Your task to perform on an android device: uninstall "Google Chrome" Image 0: 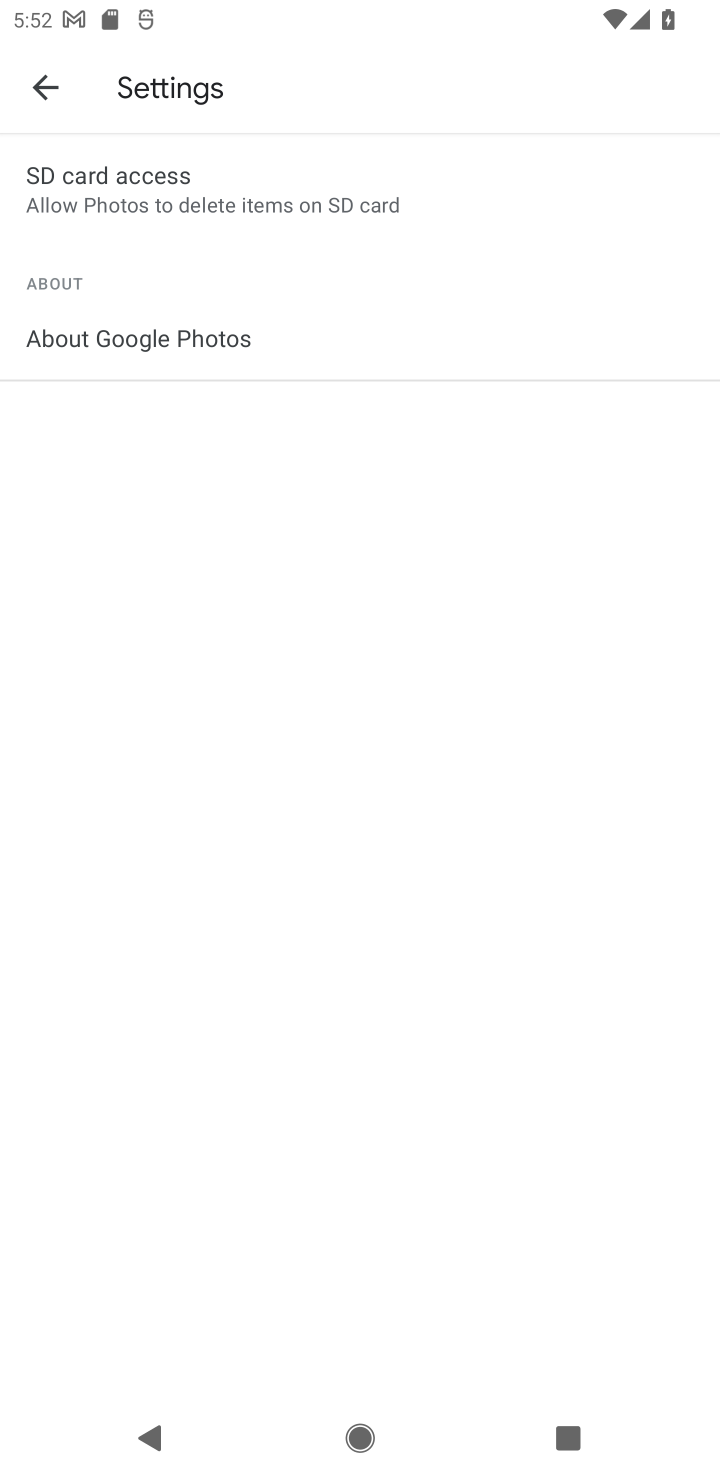
Step 0: press home button
Your task to perform on an android device: uninstall "Google Chrome" Image 1: 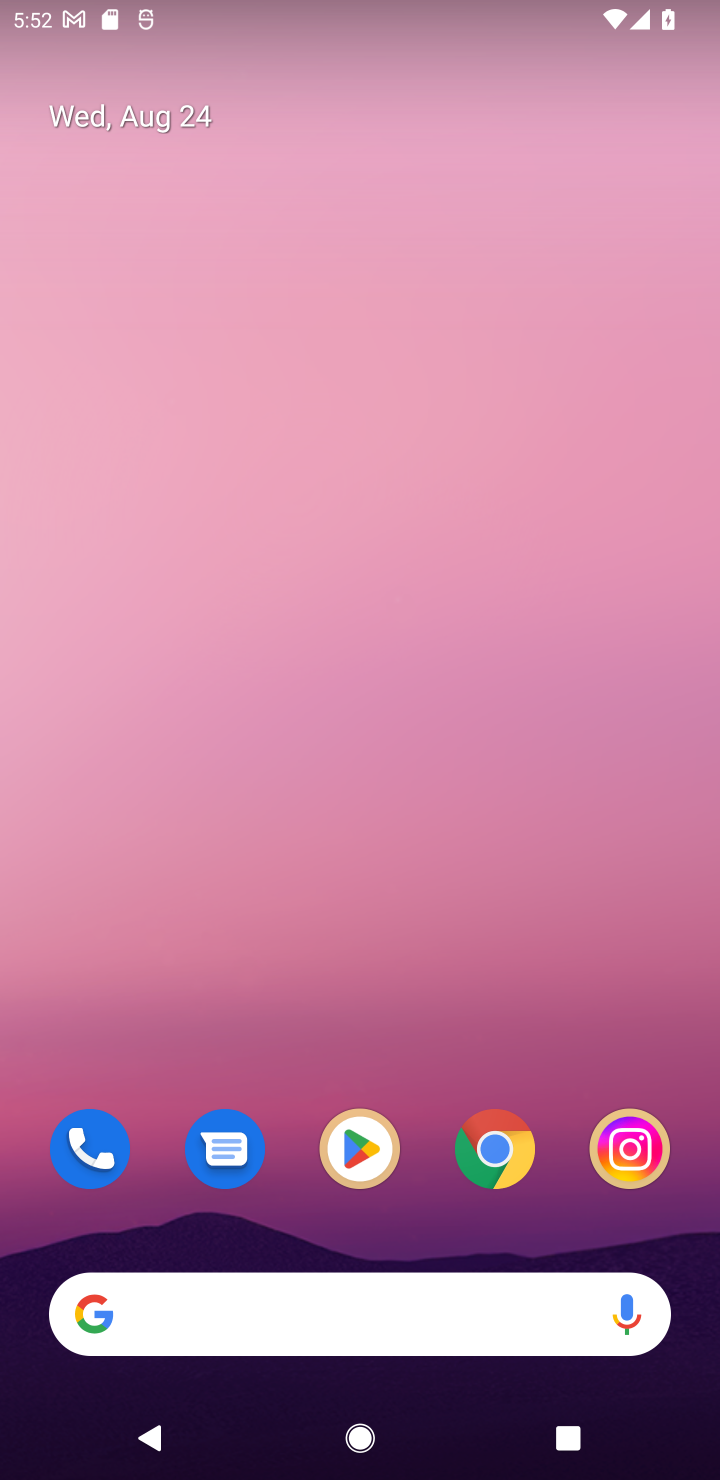
Step 1: click (347, 1154)
Your task to perform on an android device: uninstall "Google Chrome" Image 2: 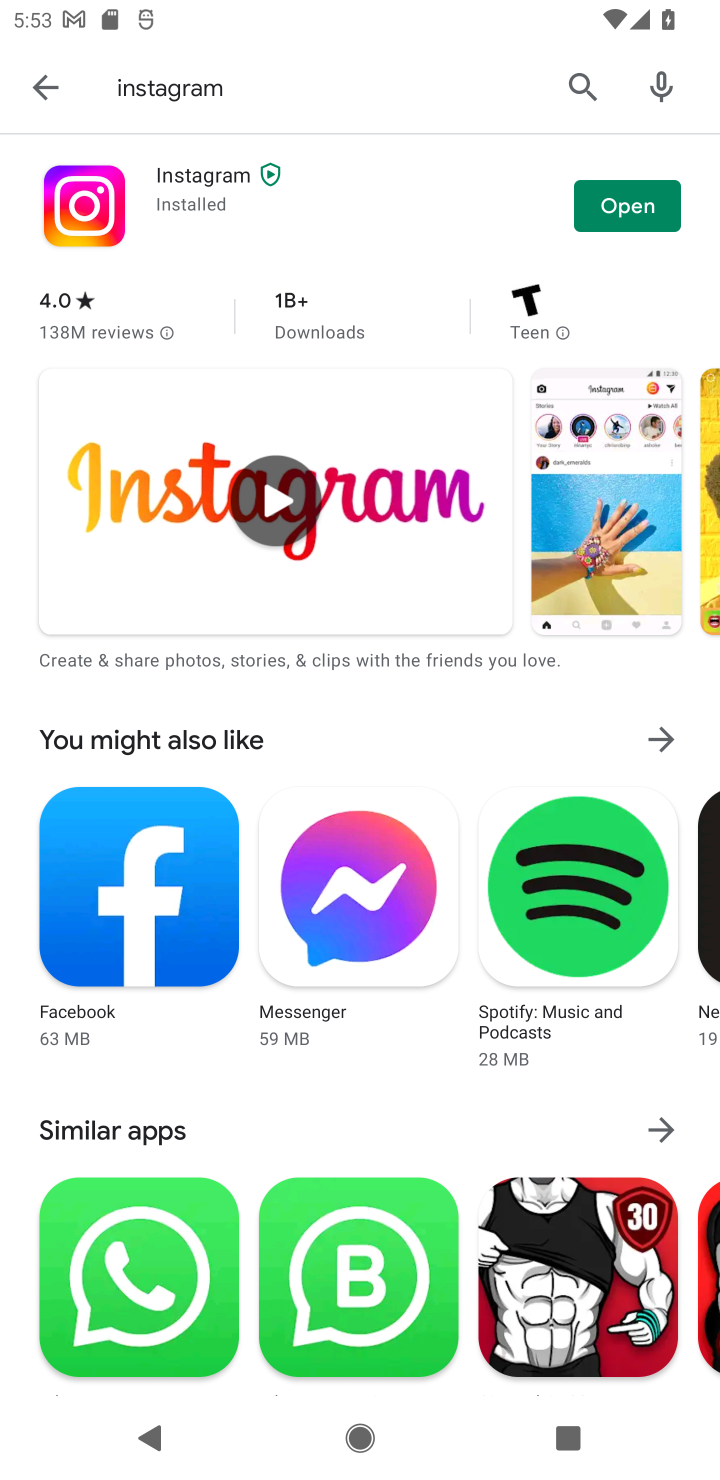
Step 2: click (584, 83)
Your task to perform on an android device: uninstall "Google Chrome" Image 3: 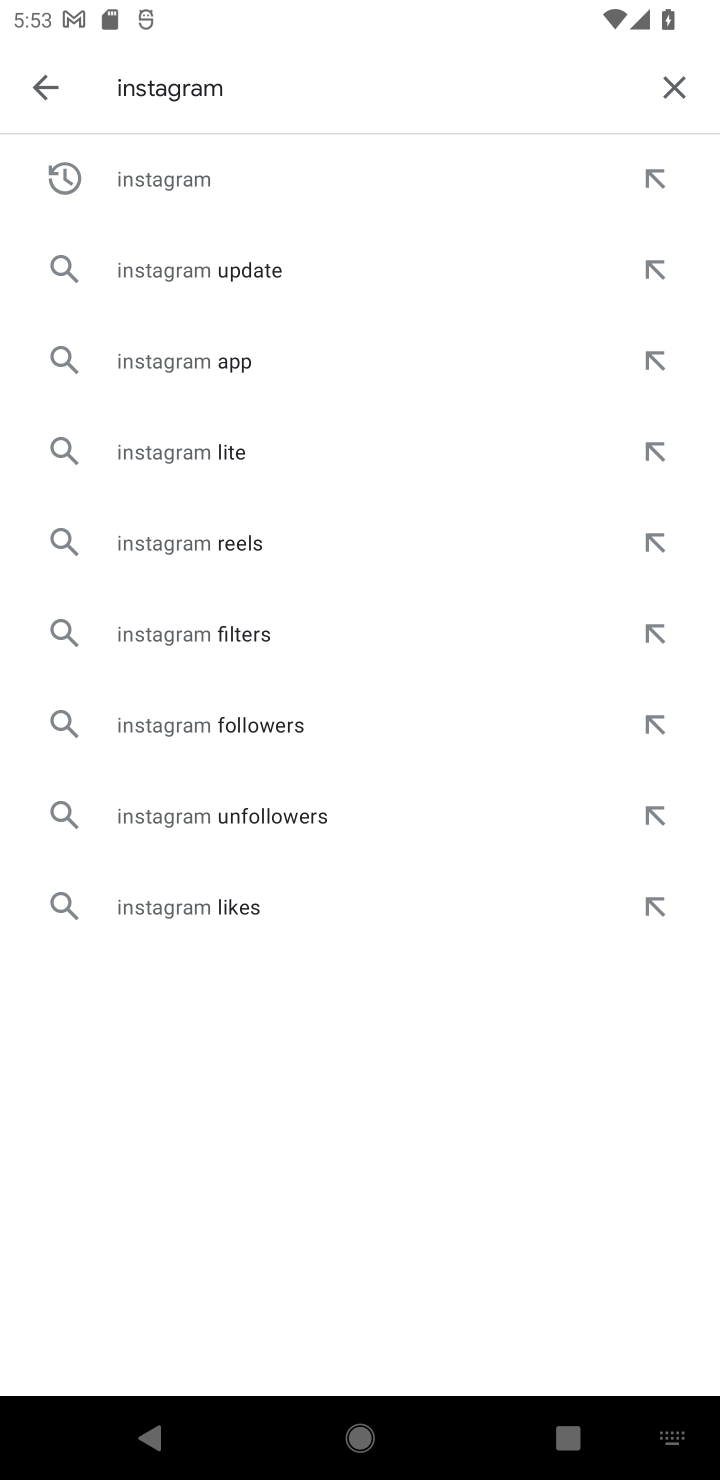
Step 3: click (664, 65)
Your task to perform on an android device: uninstall "Google Chrome" Image 4: 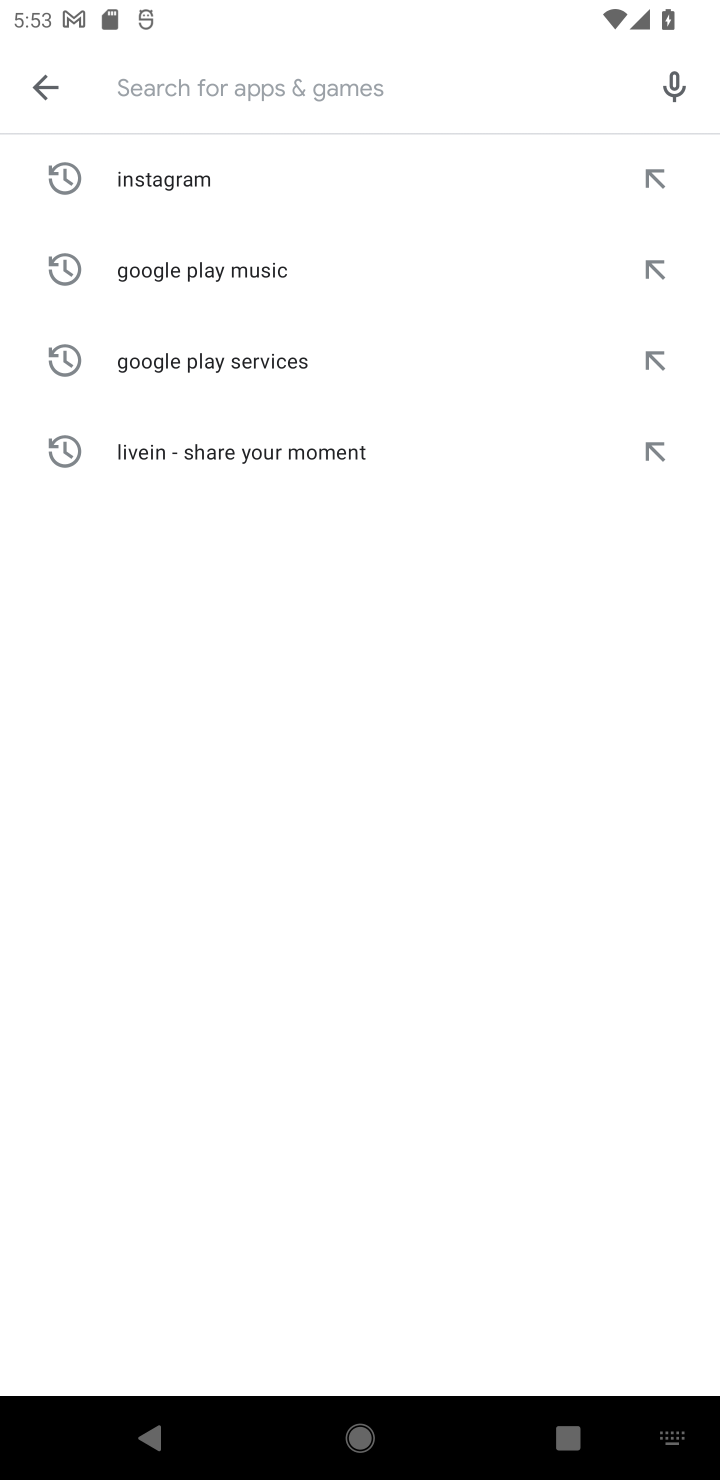
Step 4: type "Google Chrome"
Your task to perform on an android device: uninstall "Google Chrome" Image 5: 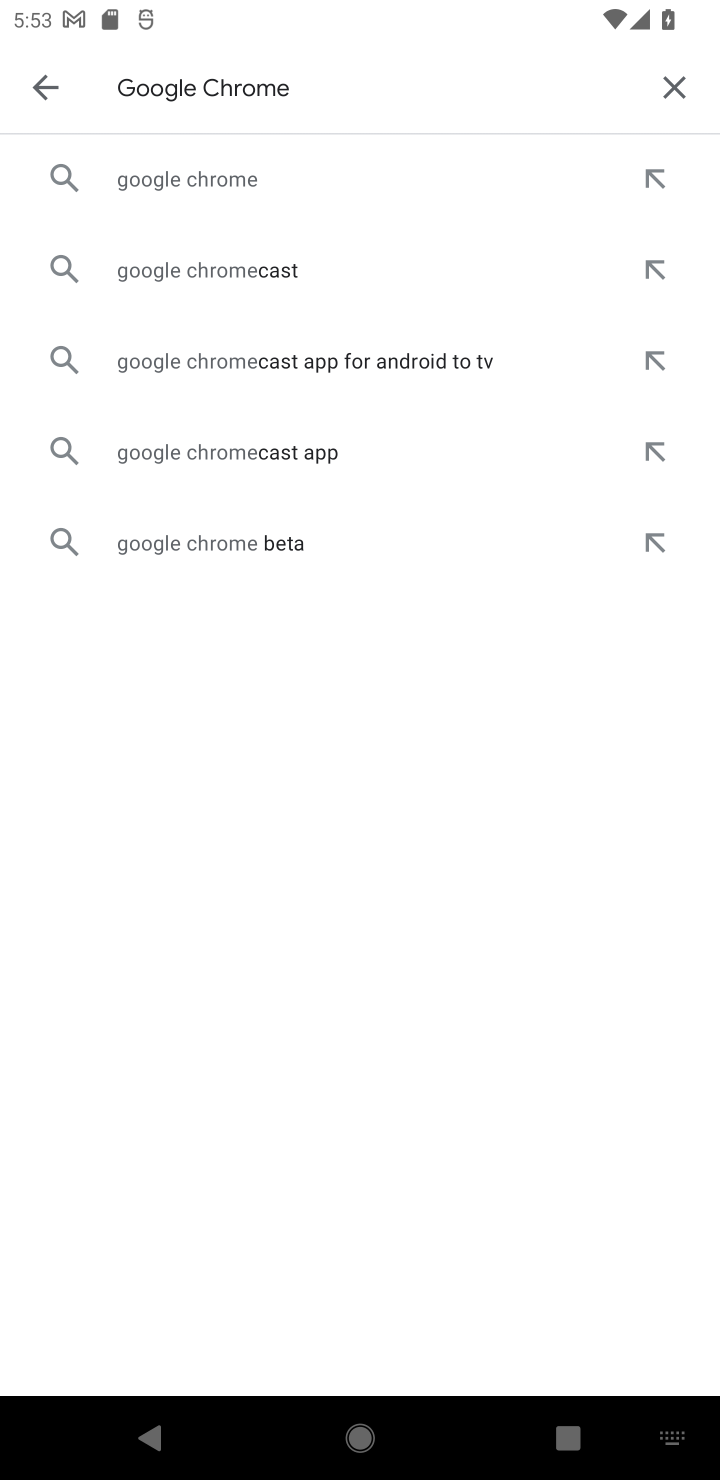
Step 5: click (250, 170)
Your task to perform on an android device: uninstall "Google Chrome" Image 6: 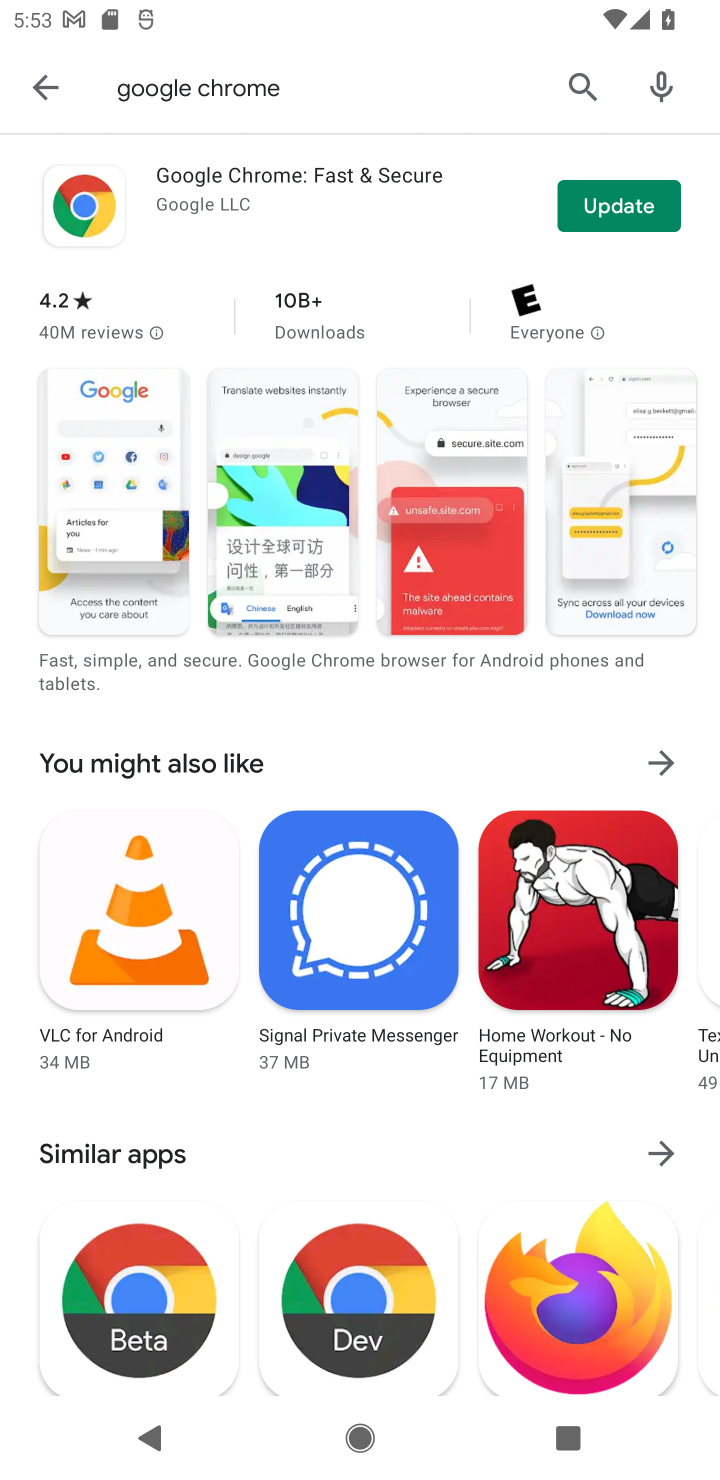
Step 6: click (213, 164)
Your task to perform on an android device: uninstall "Google Chrome" Image 7: 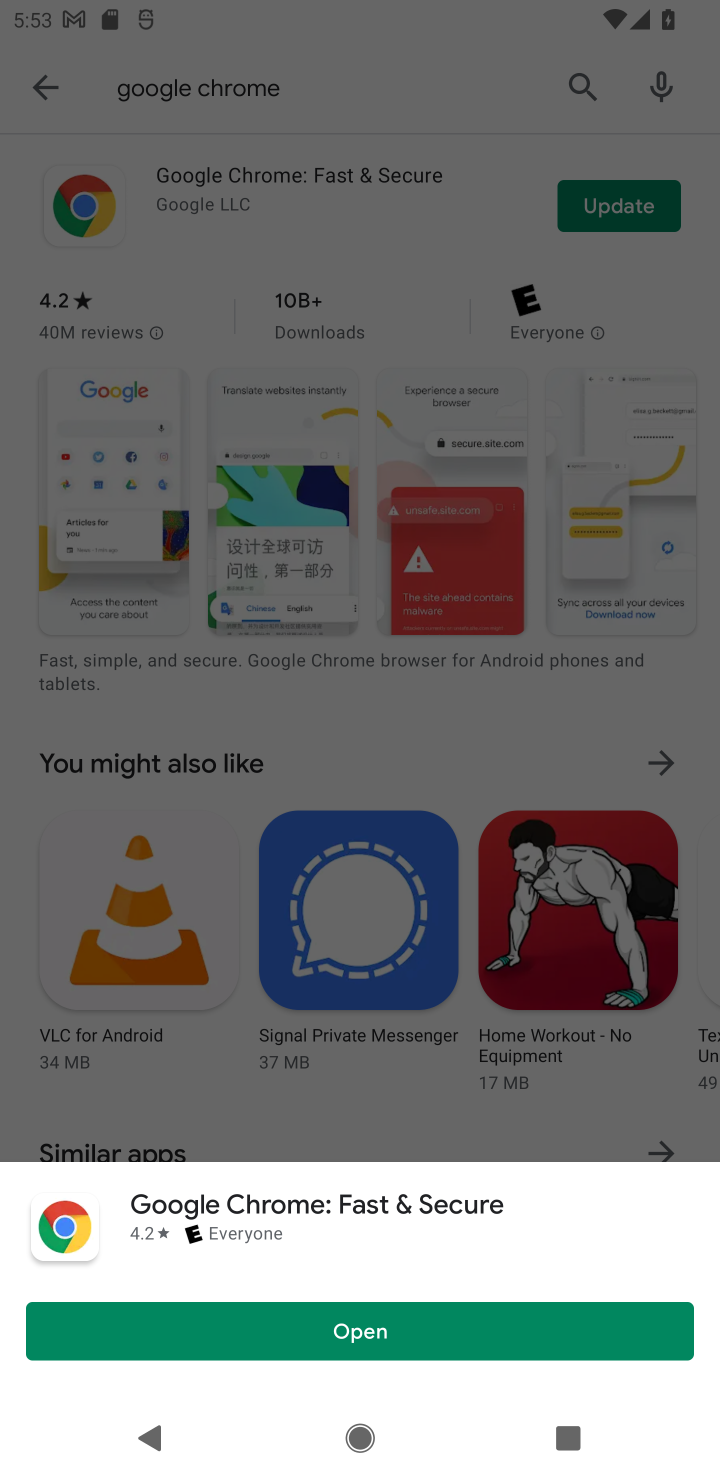
Step 7: click (171, 1201)
Your task to perform on an android device: uninstall "Google Chrome" Image 8: 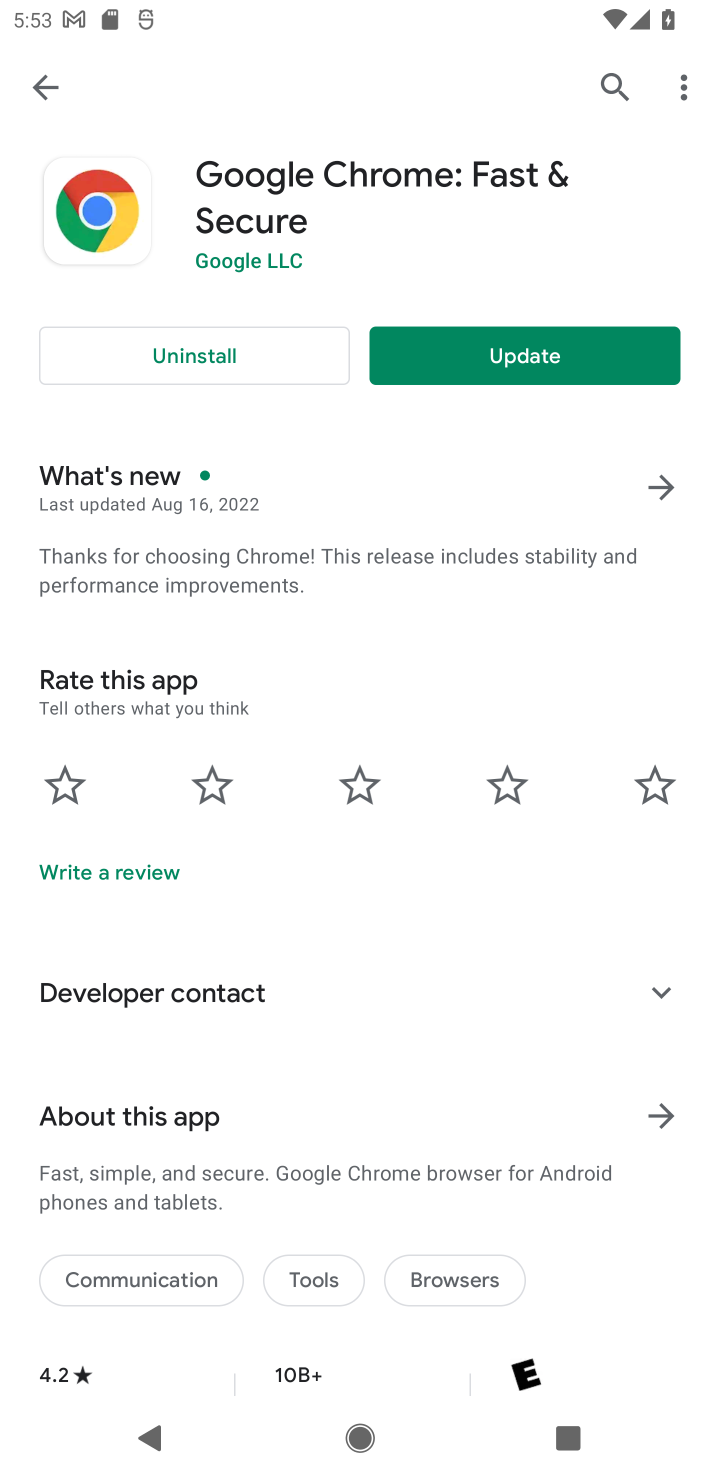
Step 8: click (214, 368)
Your task to perform on an android device: uninstall "Google Chrome" Image 9: 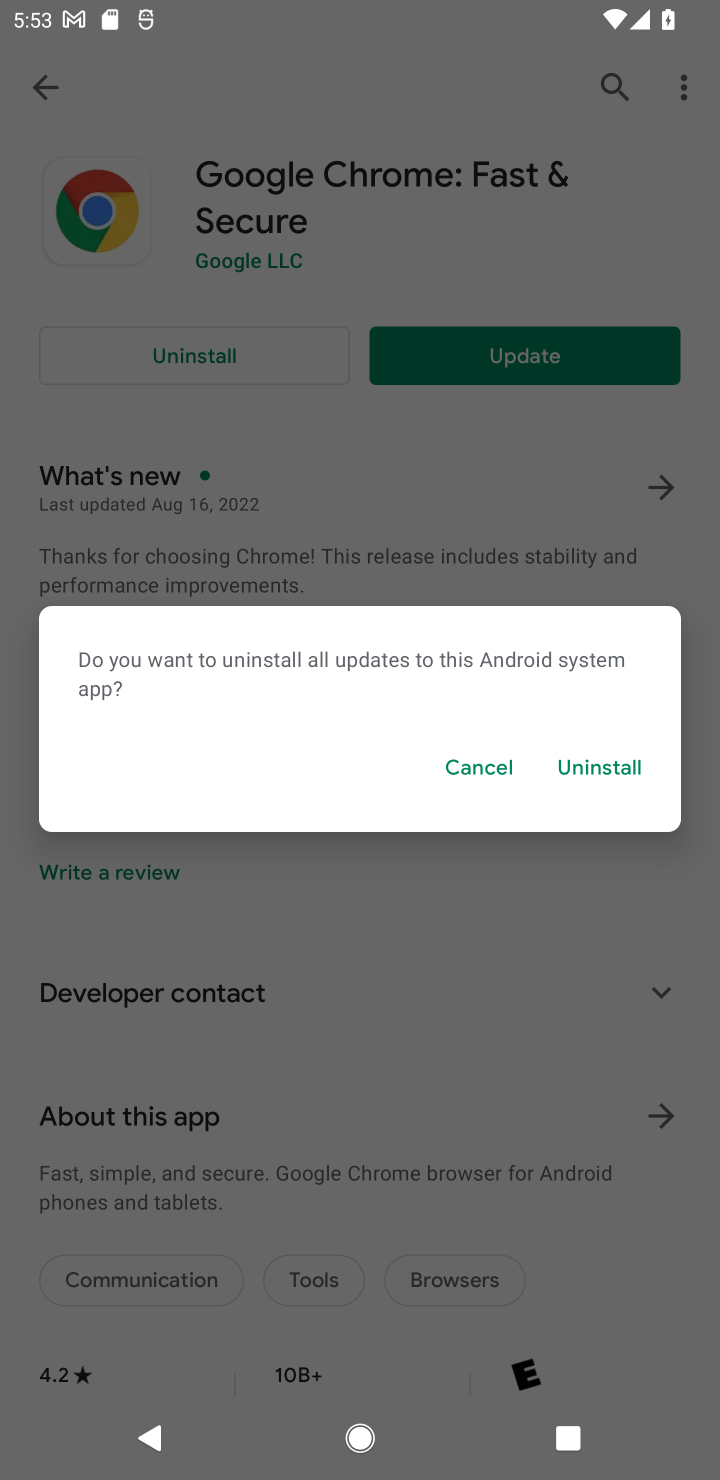
Step 9: click (614, 771)
Your task to perform on an android device: uninstall "Google Chrome" Image 10: 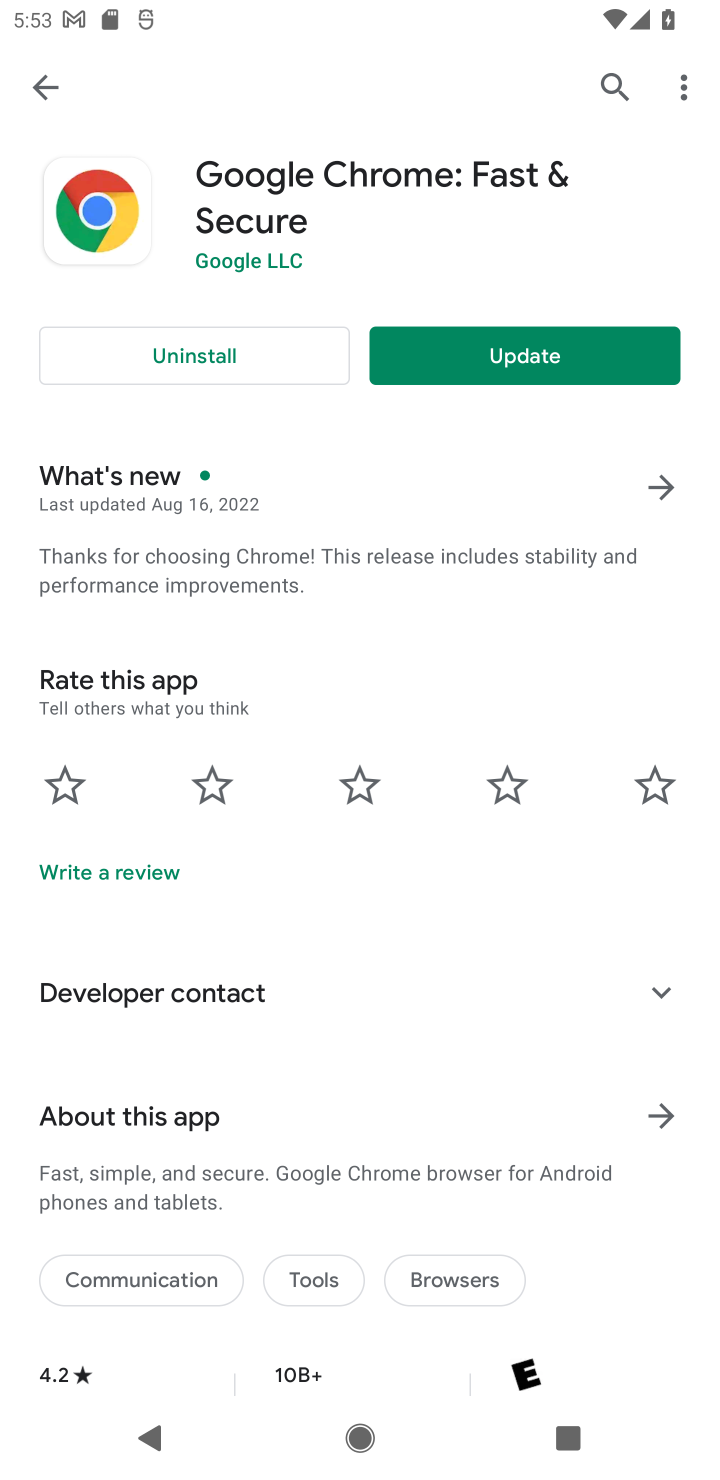
Step 10: task complete